Your task to perform on an android device: check the backup settings in the google photos Image 0: 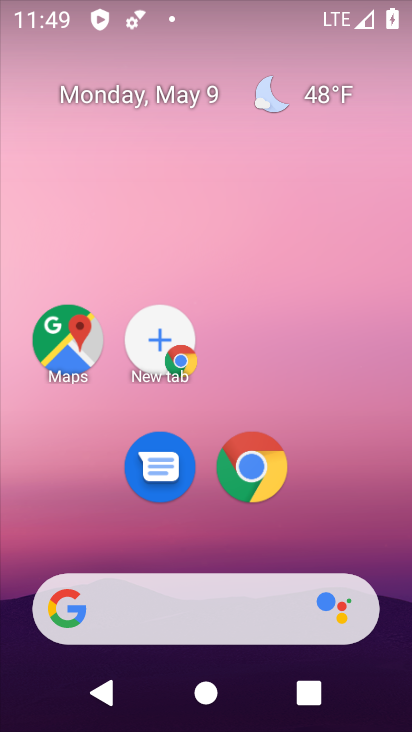
Step 0: drag from (355, 551) to (214, 93)
Your task to perform on an android device: check the backup settings in the google photos Image 1: 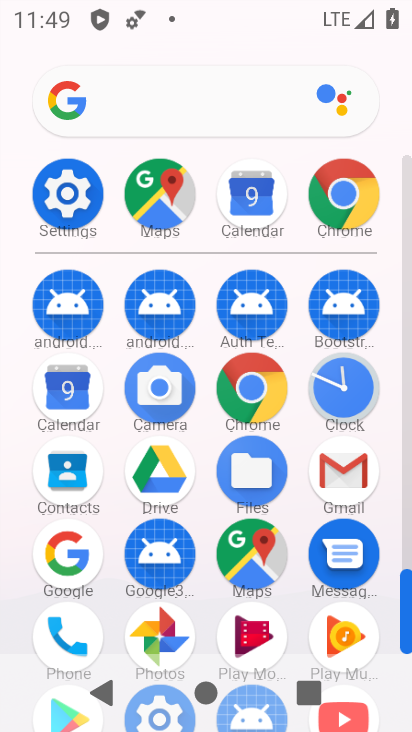
Step 1: click (161, 631)
Your task to perform on an android device: check the backup settings in the google photos Image 2: 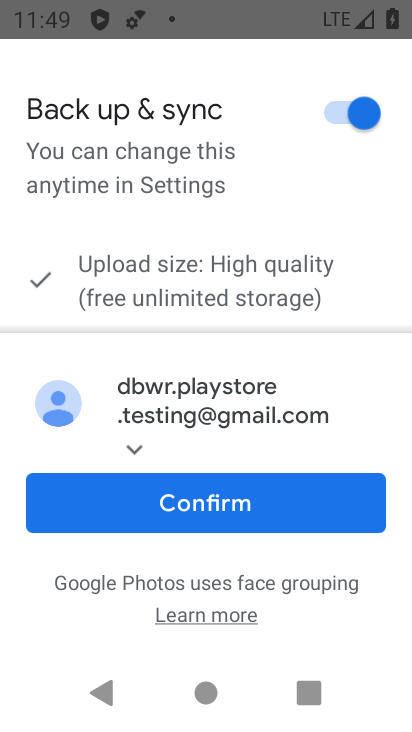
Step 2: click (235, 498)
Your task to perform on an android device: check the backup settings in the google photos Image 3: 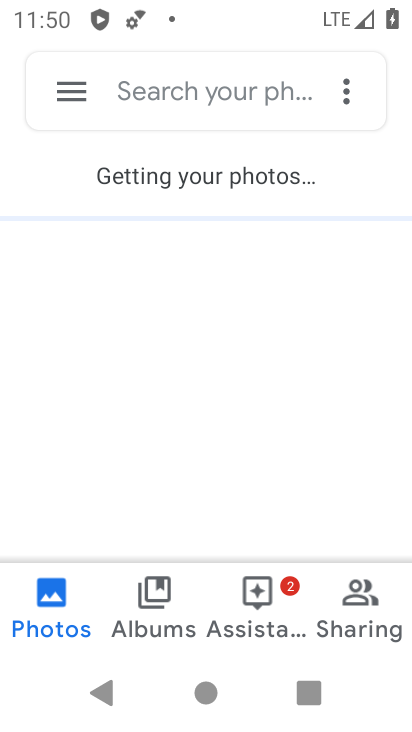
Step 3: click (237, 175)
Your task to perform on an android device: check the backup settings in the google photos Image 4: 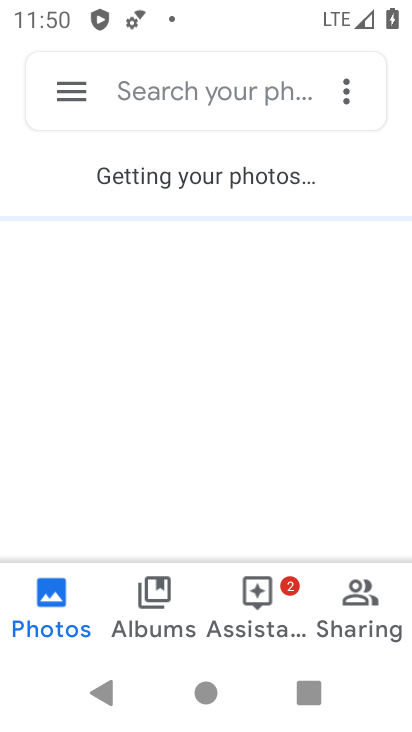
Step 4: click (345, 89)
Your task to perform on an android device: check the backup settings in the google photos Image 5: 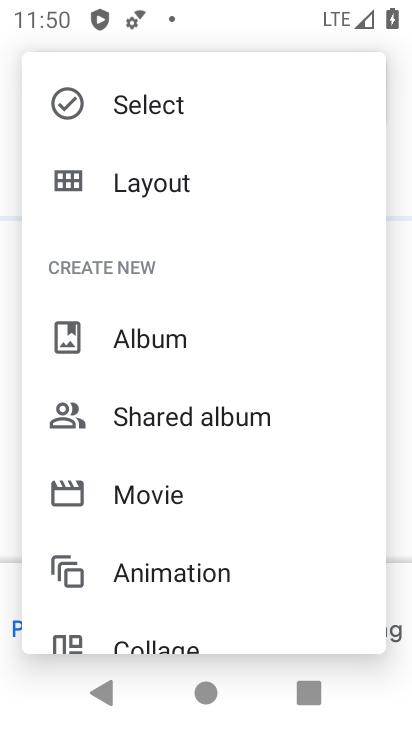
Step 5: drag from (211, 538) to (168, 254)
Your task to perform on an android device: check the backup settings in the google photos Image 6: 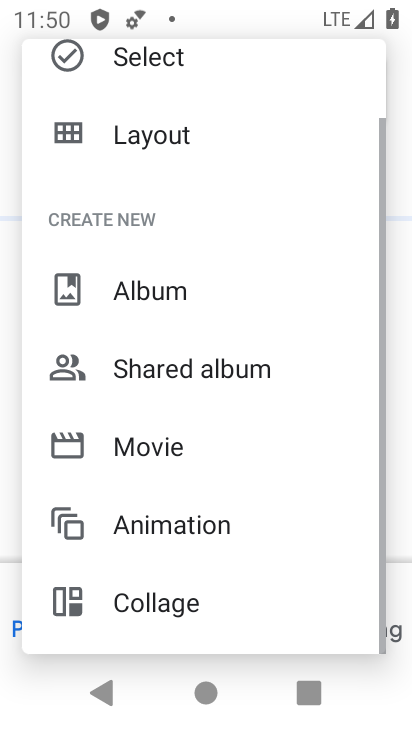
Step 6: drag from (169, 450) to (151, 138)
Your task to perform on an android device: check the backup settings in the google photos Image 7: 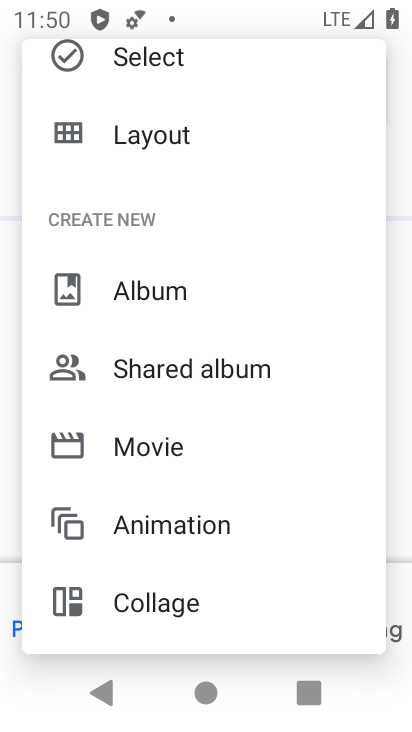
Step 7: drag from (262, 487) to (262, 236)
Your task to perform on an android device: check the backup settings in the google photos Image 8: 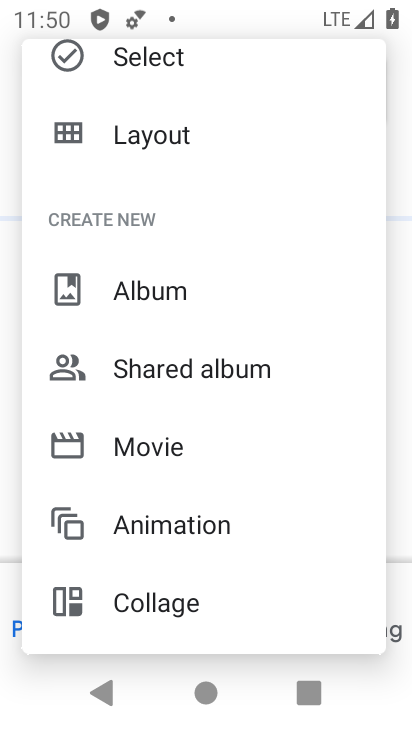
Step 8: click (402, 399)
Your task to perform on an android device: check the backup settings in the google photos Image 9: 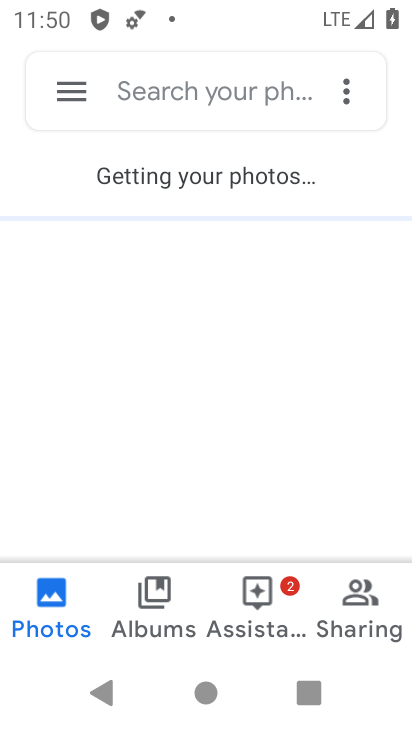
Step 9: click (401, 425)
Your task to perform on an android device: check the backup settings in the google photos Image 10: 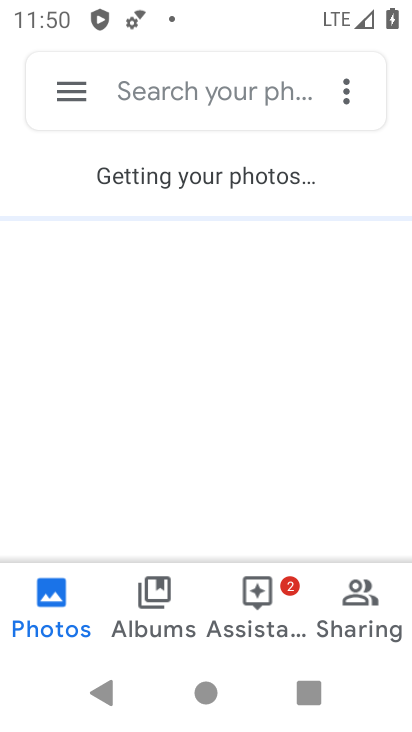
Step 10: click (84, 88)
Your task to perform on an android device: check the backup settings in the google photos Image 11: 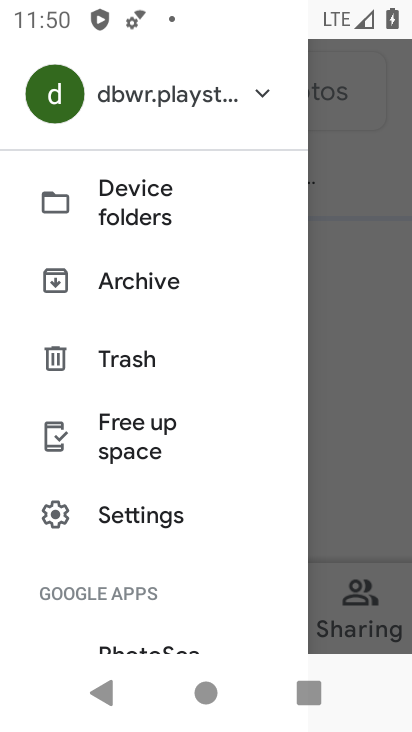
Step 11: drag from (145, 504) to (140, 85)
Your task to perform on an android device: check the backup settings in the google photos Image 12: 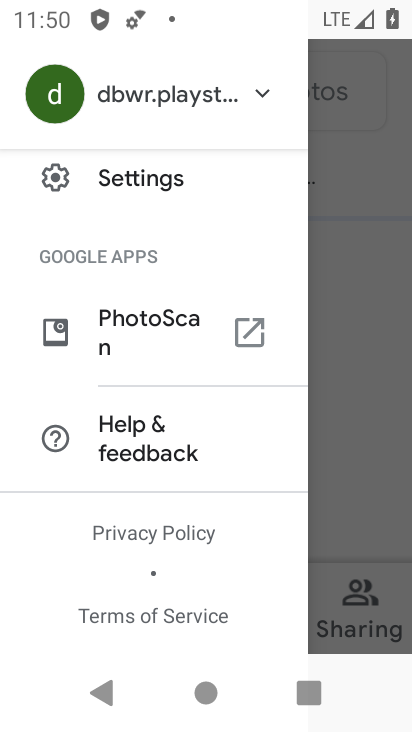
Step 12: drag from (140, 418) to (110, 102)
Your task to perform on an android device: check the backup settings in the google photos Image 13: 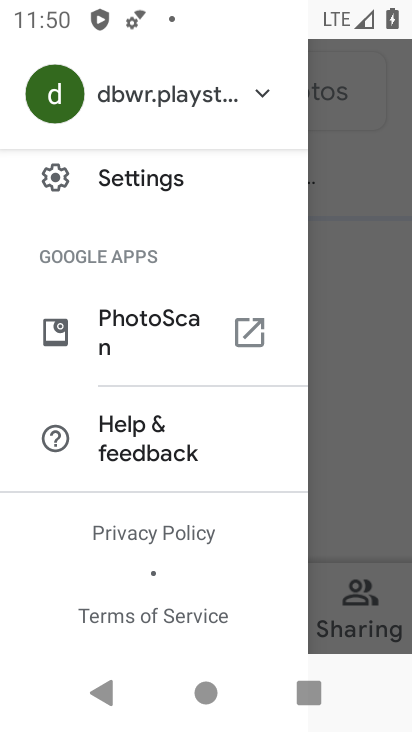
Step 13: click (141, 157)
Your task to perform on an android device: check the backup settings in the google photos Image 14: 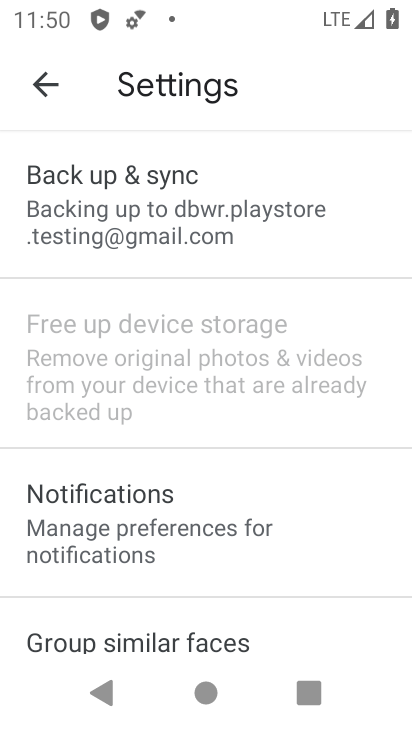
Step 14: drag from (132, 474) to (79, 135)
Your task to perform on an android device: check the backup settings in the google photos Image 15: 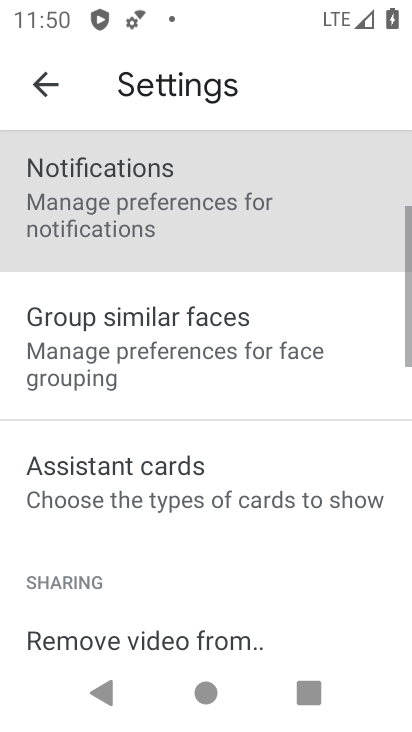
Step 15: drag from (147, 425) to (121, 125)
Your task to perform on an android device: check the backup settings in the google photos Image 16: 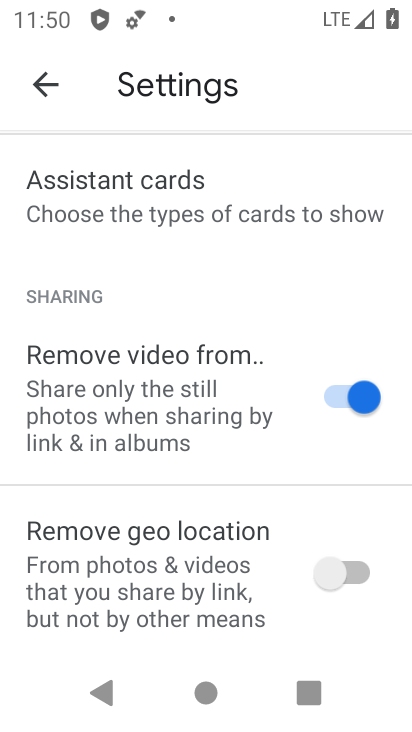
Step 16: drag from (118, 289) to (234, 532)
Your task to perform on an android device: check the backup settings in the google photos Image 17: 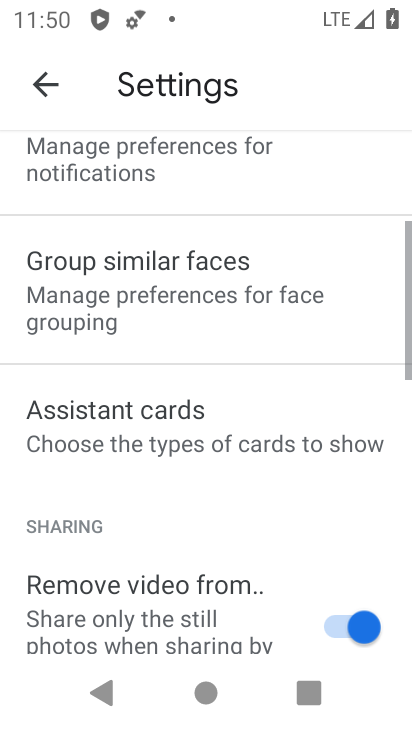
Step 17: drag from (134, 295) to (182, 528)
Your task to perform on an android device: check the backup settings in the google photos Image 18: 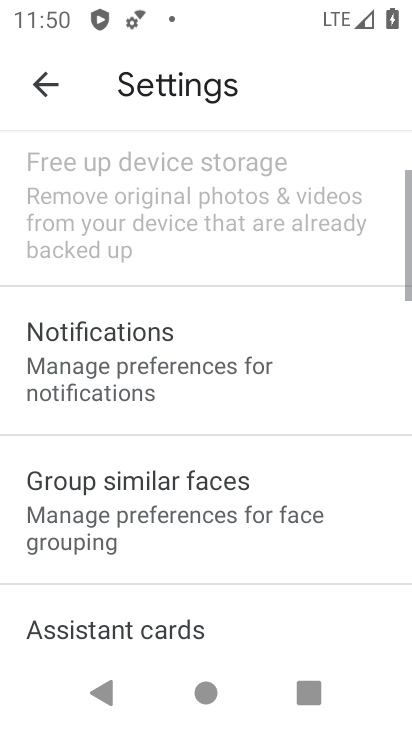
Step 18: drag from (92, 323) to (181, 610)
Your task to perform on an android device: check the backup settings in the google photos Image 19: 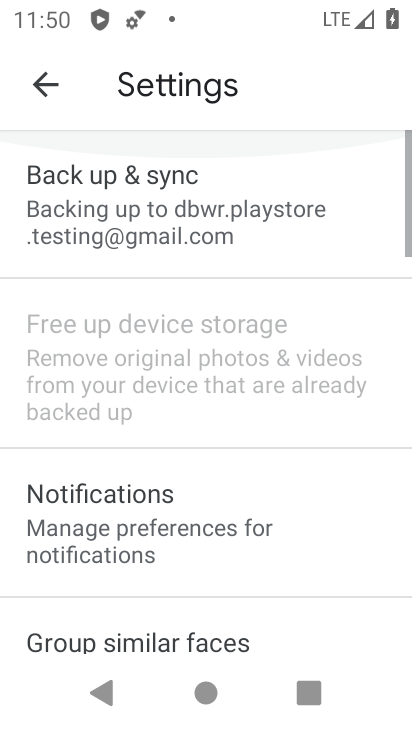
Step 19: click (249, 570)
Your task to perform on an android device: check the backup settings in the google photos Image 20: 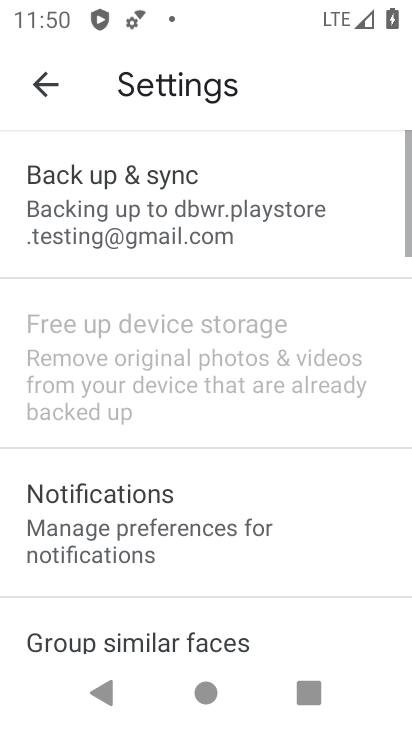
Step 20: click (147, 211)
Your task to perform on an android device: check the backup settings in the google photos Image 21: 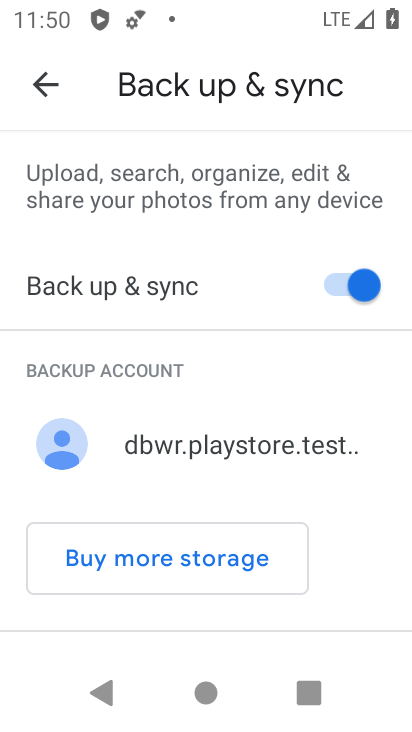
Step 21: click (132, 189)
Your task to perform on an android device: check the backup settings in the google photos Image 22: 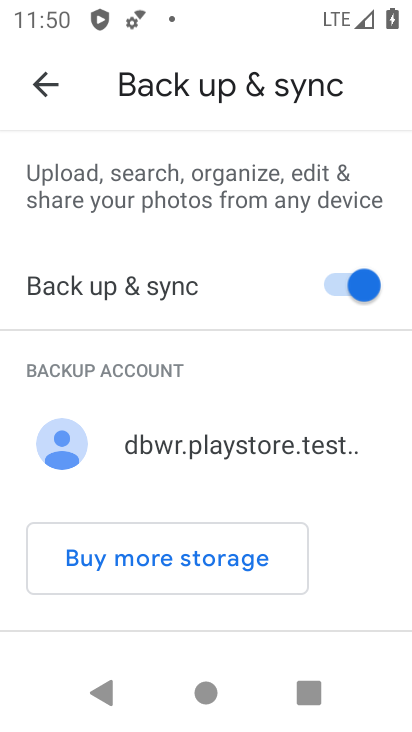
Step 22: task complete